Your task to perform on an android device: Open ESPN.com Image 0: 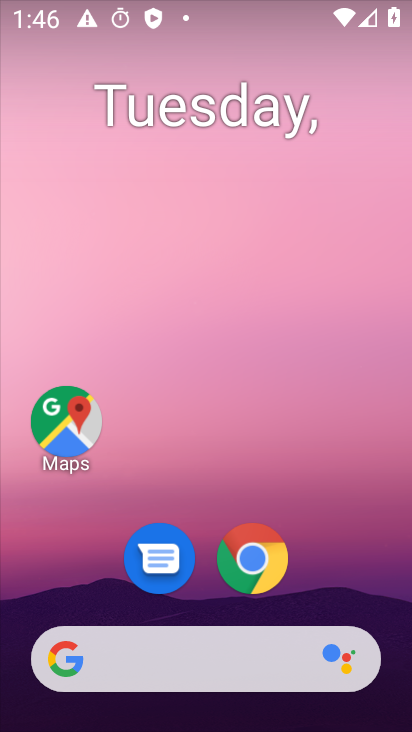
Step 0: click (265, 566)
Your task to perform on an android device: Open ESPN.com Image 1: 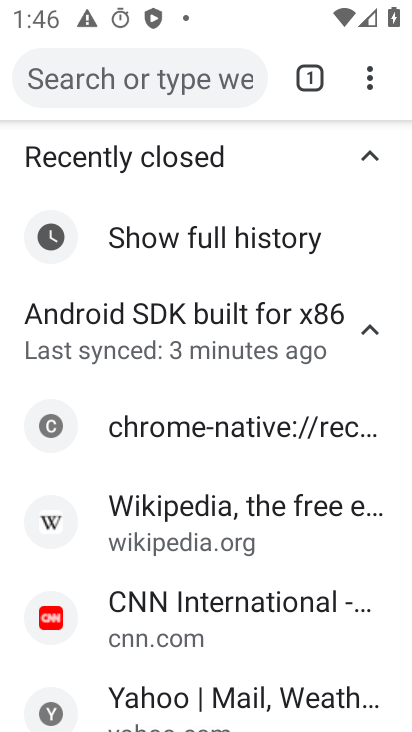
Step 1: drag from (303, 69) to (356, 69)
Your task to perform on an android device: Open ESPN.com Image 2: 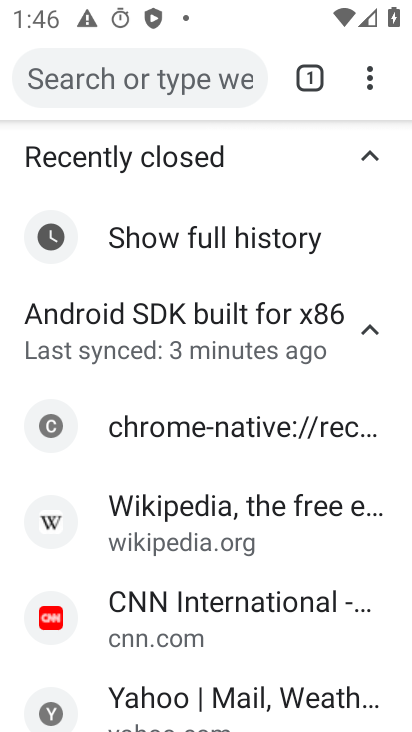
Step 2: click (294, 74)
Your task to perform on an android device: Open ESPN.com Image 3: 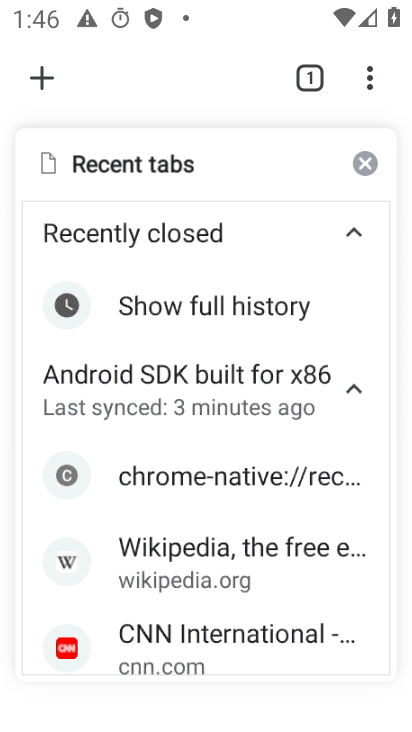
Step 3: click (30, 77)
Your task to perform on an android device: Open ESPN.com Image 4: 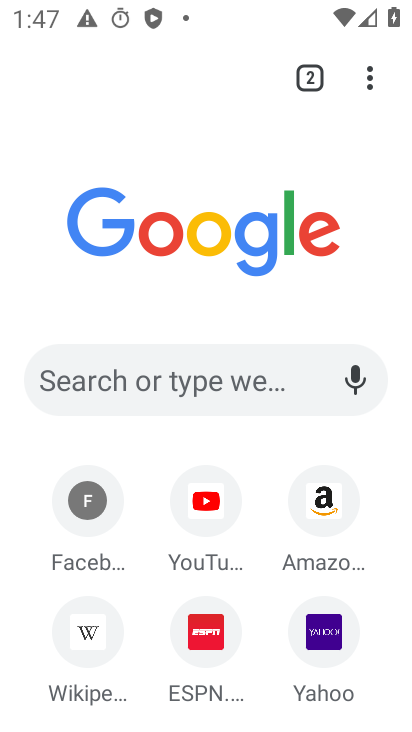
Step 4: click (179, 368)
Your task to perform on an android device: Open ESPN.com Image 5: 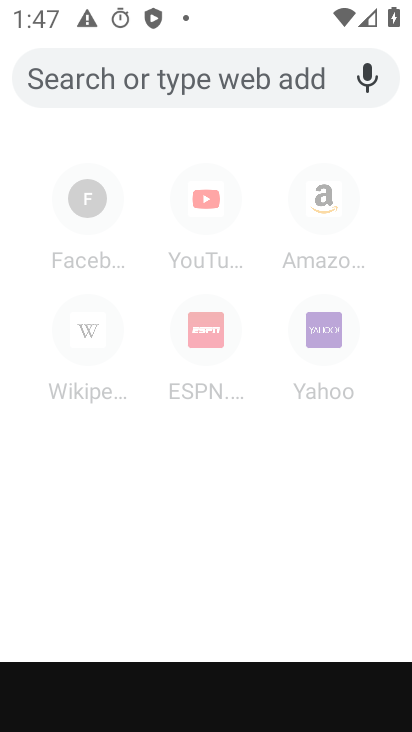
Step 5: click (198, 646)
Your task to perform on an android device: Open ESPN.com Image 6: 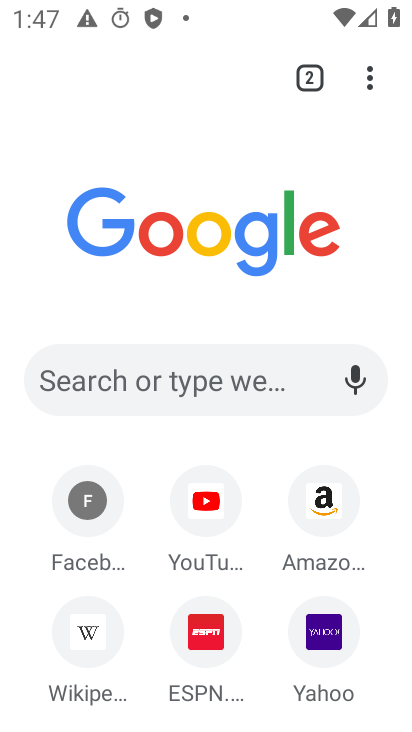
Step 6: click (197, 337)
Your task to perform on an android device: Open ESPN.com Image 7: 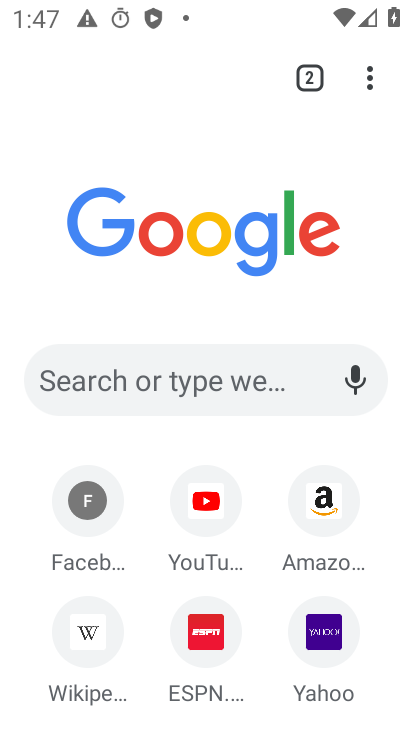
Step 7: click (209, 631)
Your task to perform on an android device: Open ESPN.com Image 8: 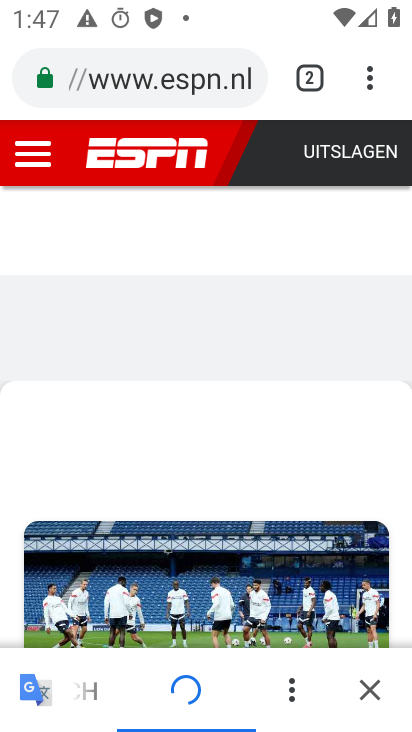
Step 8: task complete